Your task to perform on an android device: turn off airplane mode Image 0: 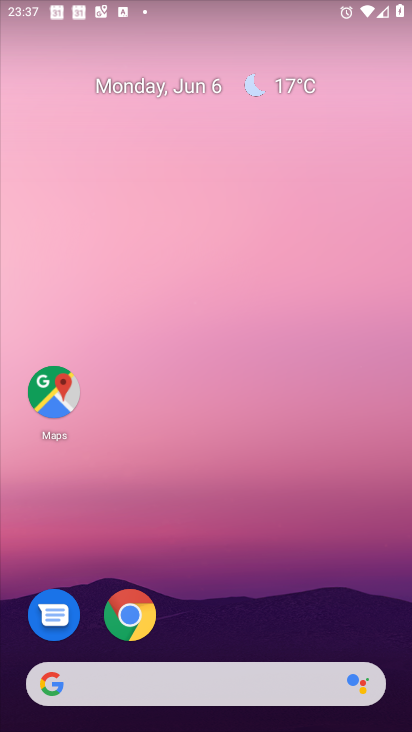
Step 0: drag from (371, 522) to (314, 2)
Your task to perform on an android device: turn off airplane mode Image 1: 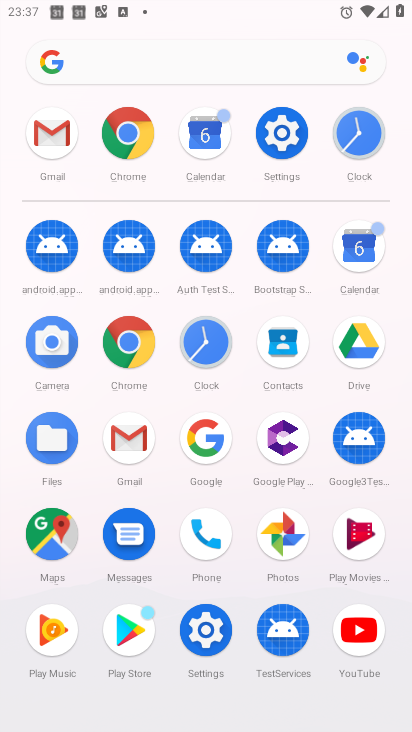
Step 1: click (289, 144)
Your task to perform on an android device: turn off airplane mode Image 2: 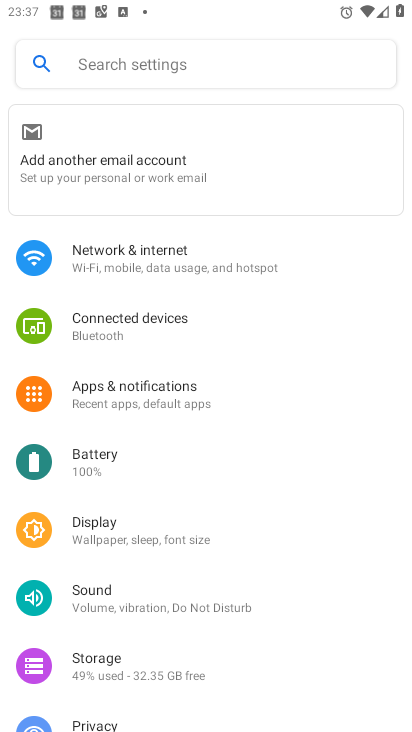
Step 2: click (117, 258)
Your task to perform on an android device: turn off airplane mode Image 3: 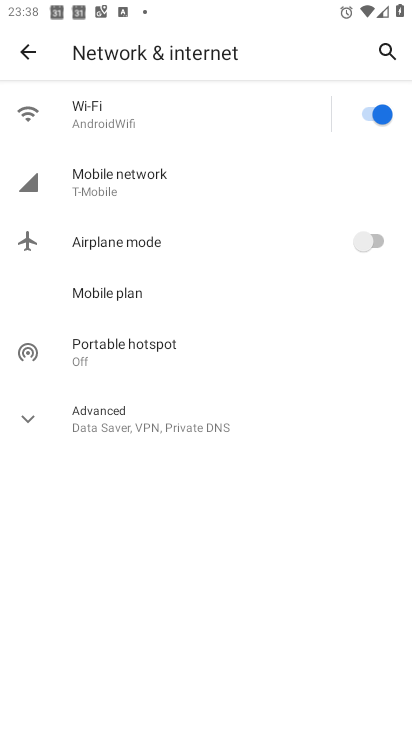
Step 3: task complete